Your task to perform on an android device: Go to network settings Image 0: 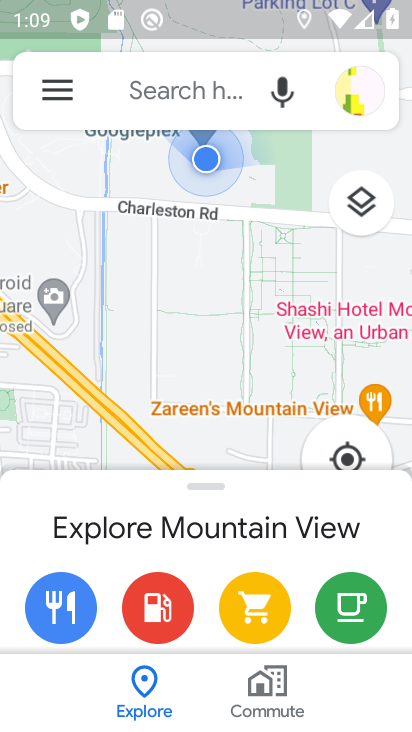
Step 0: press home button
Your task to perform on an android device: Go to network settings Image 1: 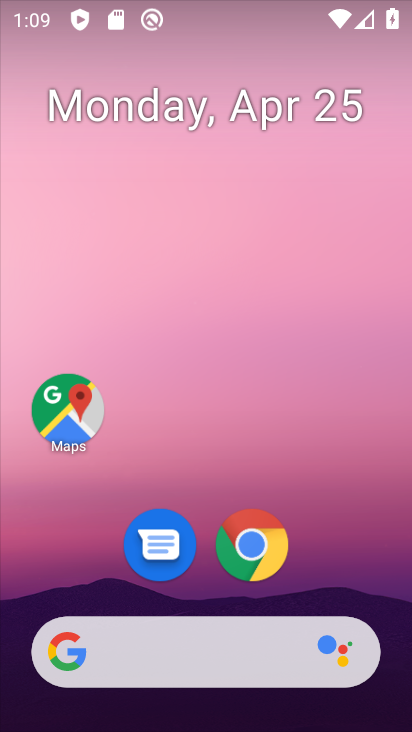
Step 1: drag from (304, 428) to (299, 114)
Your task to perform on an android device: Go to network settings Image 2: 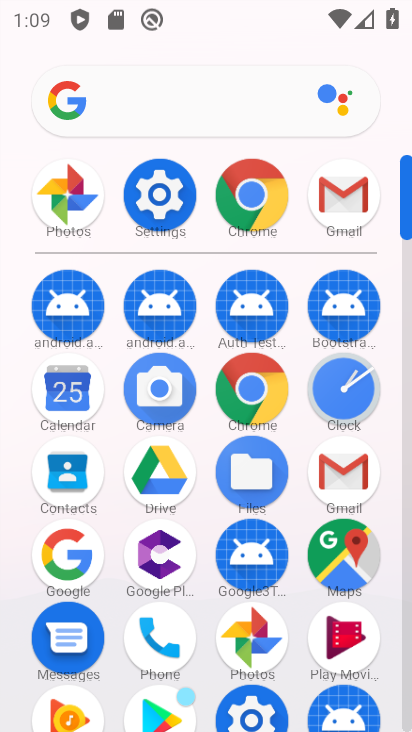
Step 2: click (163, 197)
Your task to perform on an android device: Go to network settings Image 3: 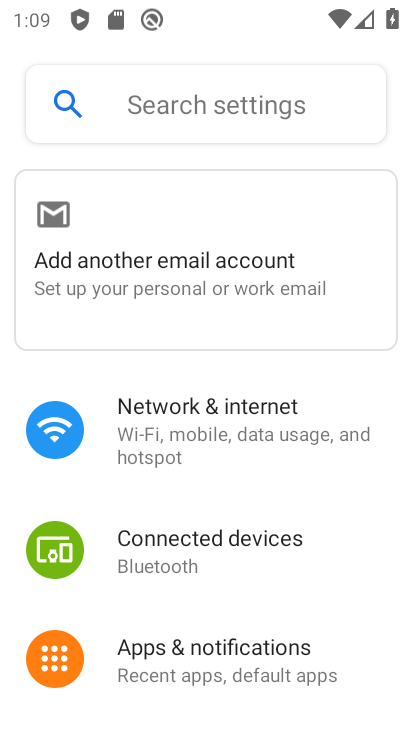
Step 3: click (226, 436)
Your task to perform on an android device: Go to network settings Image 4: 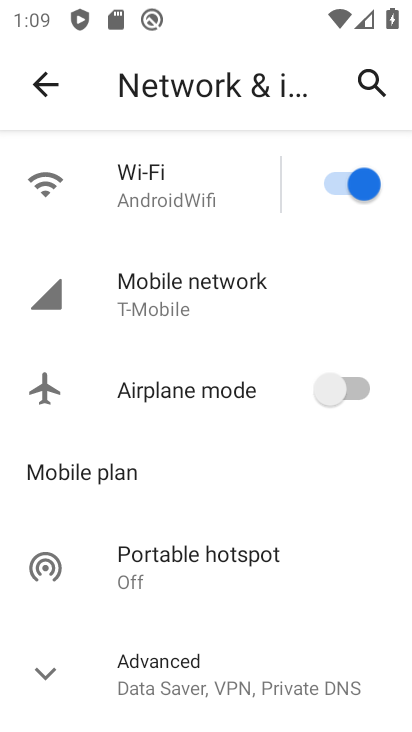
Step 4: task complete